Your task to perform on an android device: see tabs open on other devices in the chrome app Image 0: 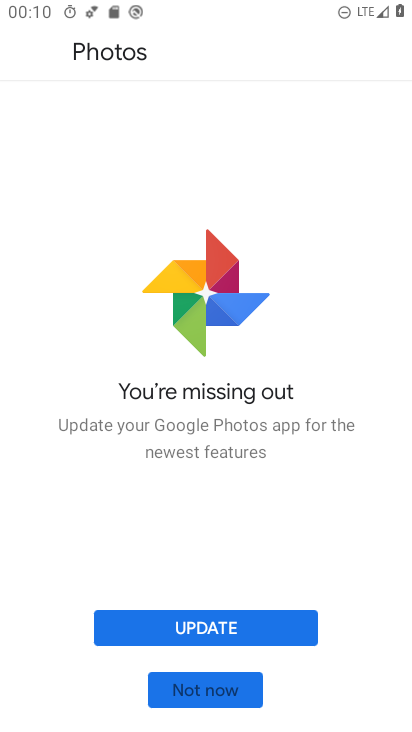
Step 0: press home button
Your task to perform on an android device: see tabs open on other devices in the chrome app Image 1: 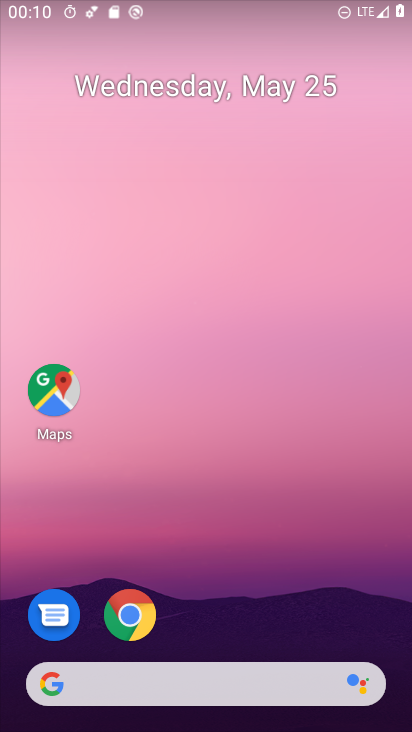
Step 1: drag from (296, 696) to (307, 124)
Your task to perform on an android device: see tabs open on other devices in the chrome app Image 2: 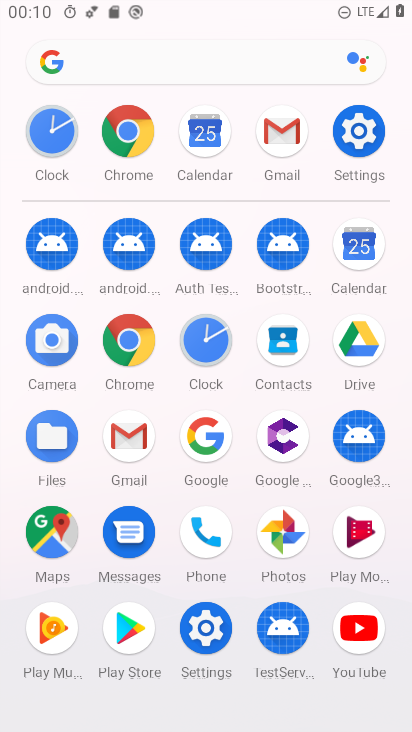
Step 2: click (125, 140)
Your task to perform on an android device: see tabs open on other devices in the chrome app Image 3: 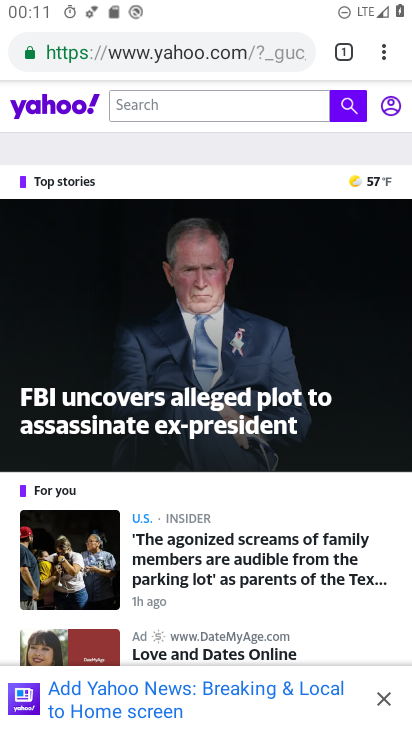
Step 3: click (390, 63)
Your task to perform on an android device: see tabs open on other devices in the chrome app Image 4: 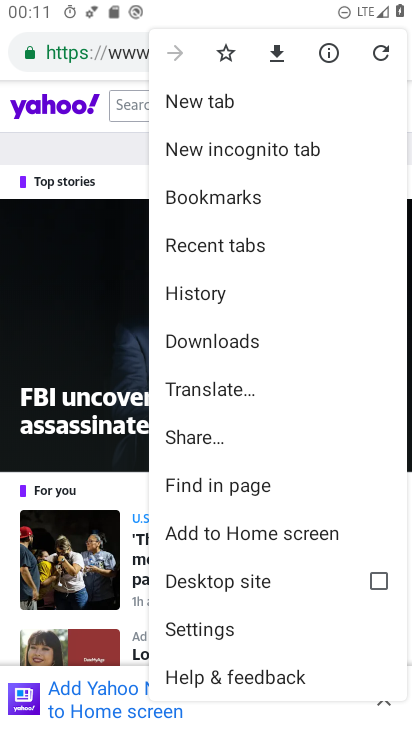
Step 4: click (105, 157)
Your task to perform on an android device: see tabs open on other devices in the chrome app Image 5: 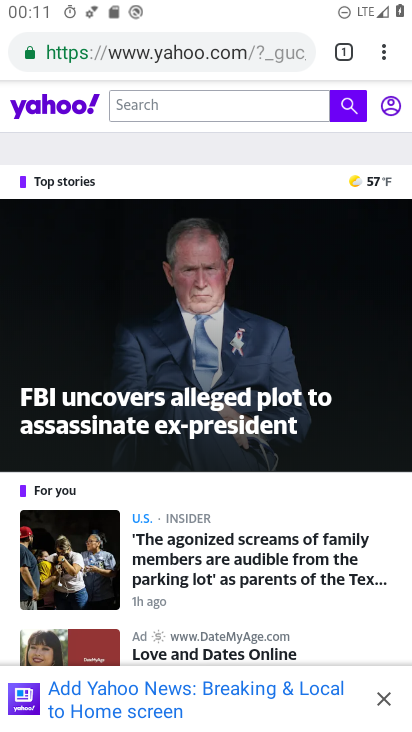
Step 5: click (346, 47)
Your task to perform on an android device: see tabs open on other devices in the chrome app Image 6: 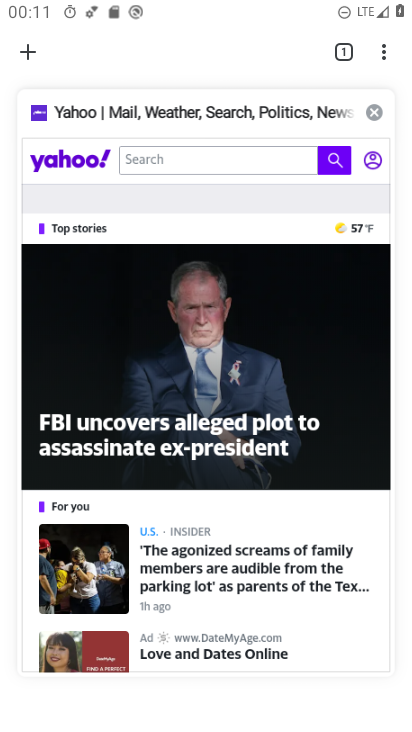
Step 6: click (26, 49)
Your task to perform on an android device: see tabs open on other devices in the chrome app Image 7: 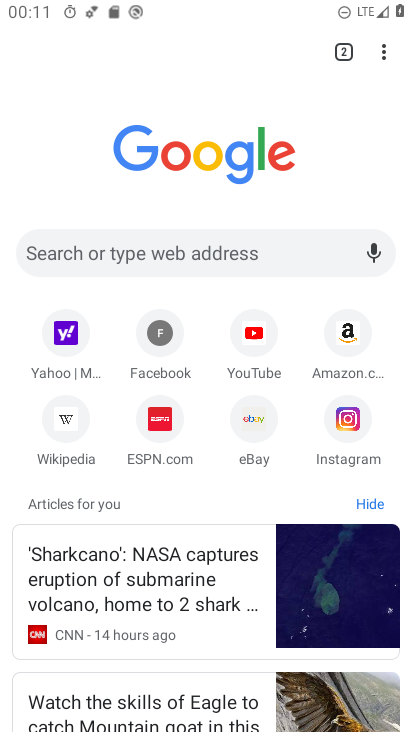
Step 7: task complete